Your task to perform on an android device: Open calendar and show me the fourth week of next month Image 0: 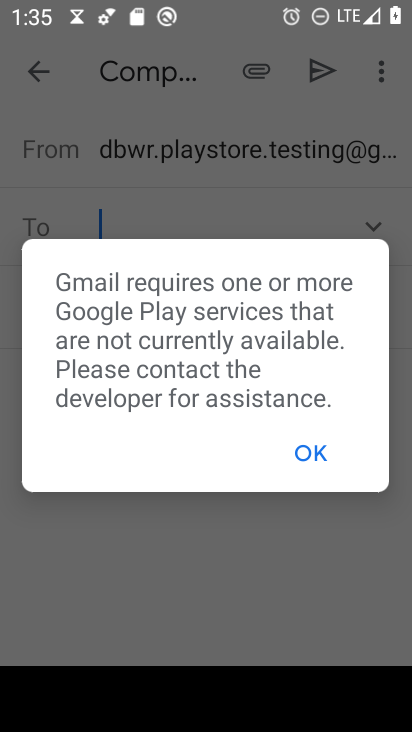
Step 0: press home button
Your task to perform on an android device: Open calendar and show me the fourth week of next month Image 1: 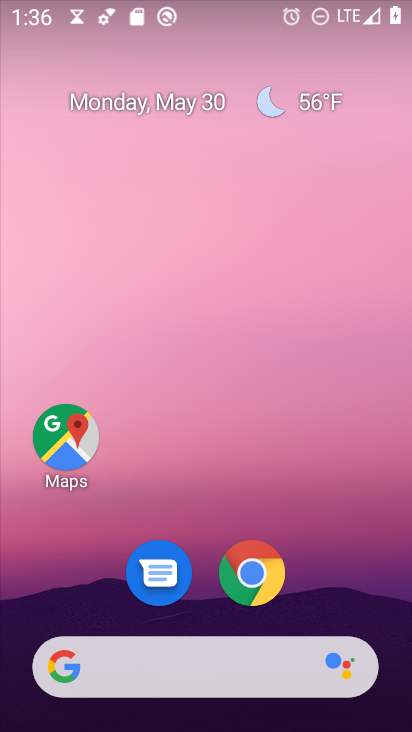
Step 1: drag from (213, 640) to (269, 40)
Your task to perform on an android device: Open calendar and show me the fourth week of next month Image 2: 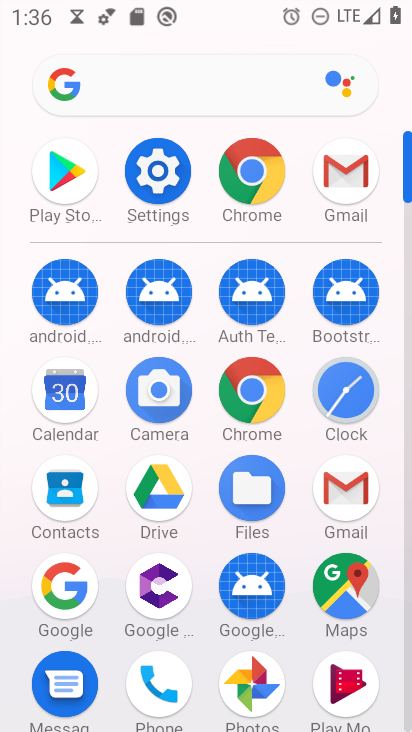
Step 2: click (76, 403)
Your task to perform on an android device: Open calendar and show me the fourth week of next month Image 3: 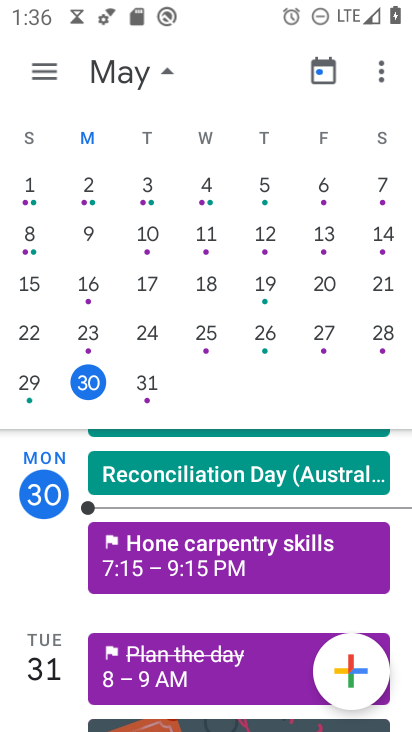
Step 3: drag from (143, 250) to (26, 284)
Your task to perform on an android device: Open calendar and show me the fourth week of next month Image 4: 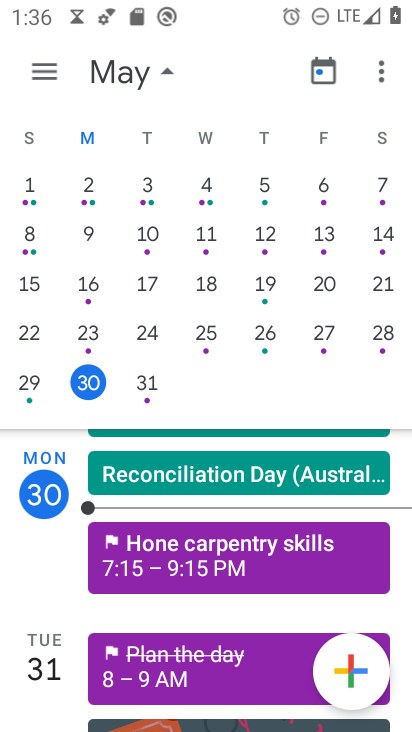
Step 4: click (202, 331)
Your task to perform on an android device: Open calendar and show me the fourth week of next month Image 5: 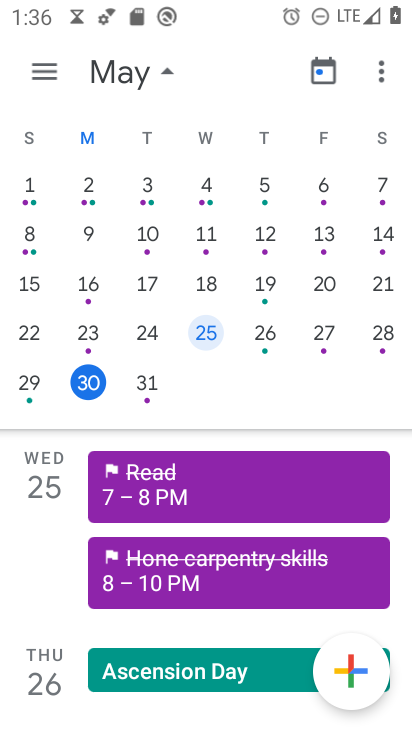
Step 5: click (53, 62)
Your task to perform on an android device: Open calendar and show me the fourth week of next month Image 6: 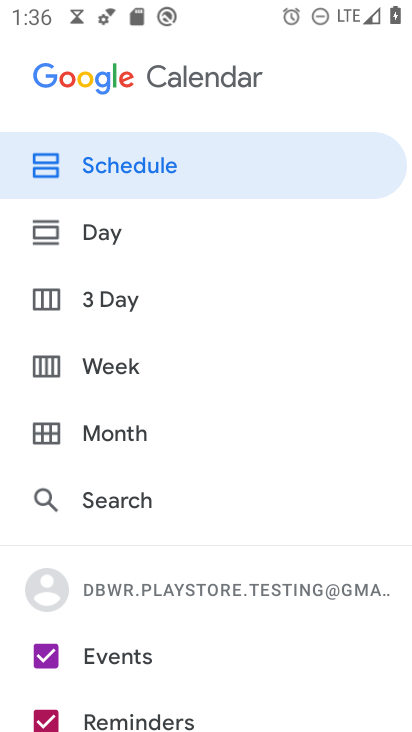
Step 6: click (131, 366)
Your task to perform on an android device: Open calendar and show me the fourth week of next month Image 7: 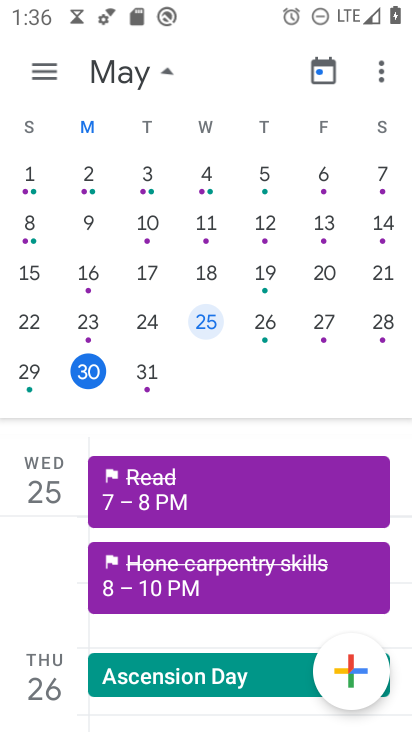
Step 7: task complete